Your task to perform on an android device: Go to Android settings Image 0: 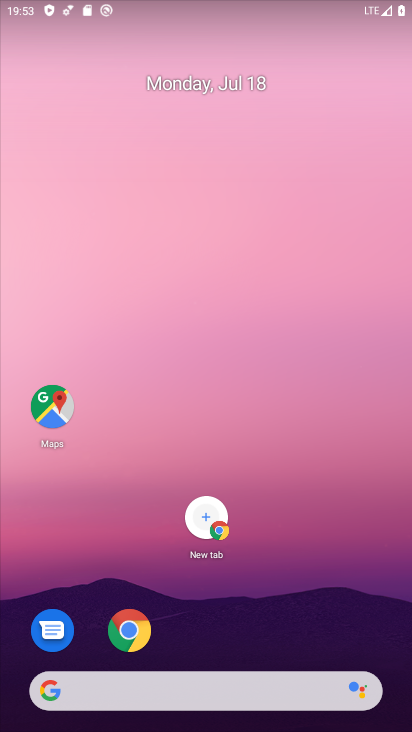
Step 0: task complete